Your task to perform on an android device: Open Google Chrome and open the bookmarks view Image 0: 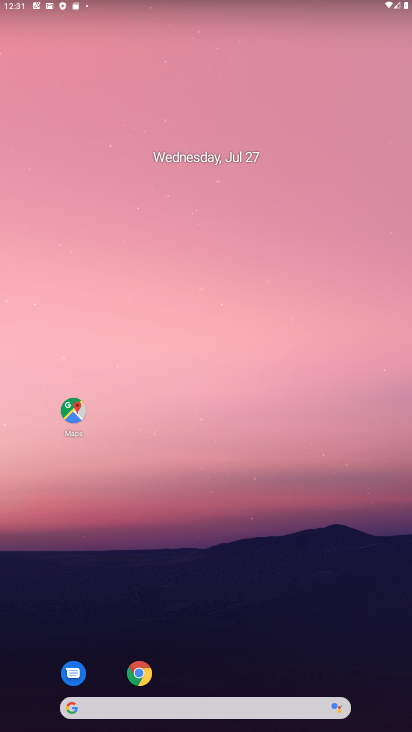
Step 0: drag from (181, 623) to (274, 69)
Your task to perform on an android device: Open Google Chrome and open the bookmarks view Image 1: 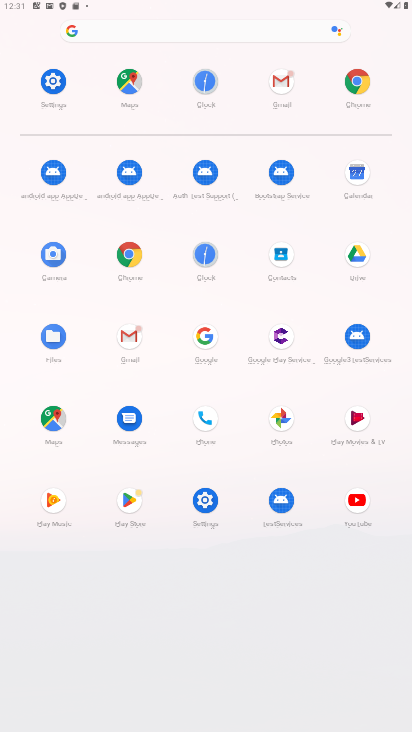
Step 1: click (138, 258)
Your task to perform on an android device: Open Google Chrome and open the bookmarks view Image 2: 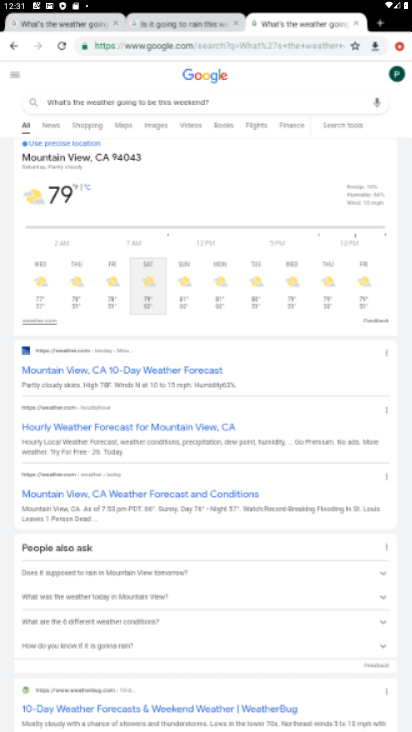
Step 2: click (403, 48)
Your task to perform on an android device: Open Google Chrome and open the bookmarks view Image 3: 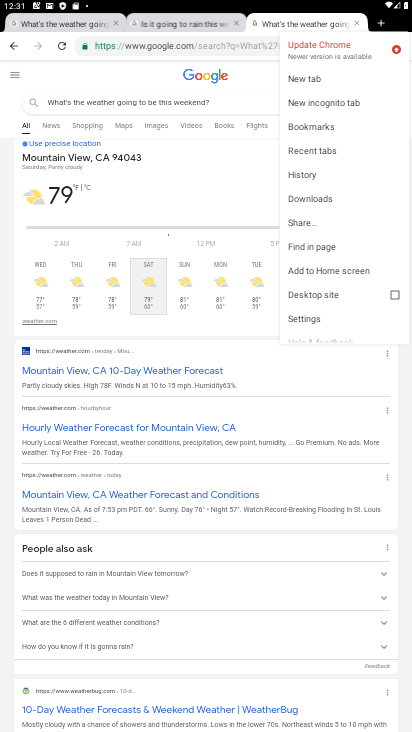
Step 3: click (306, 119)
Your task to perform on an android device: Open Google Chrome and open the bookmarks view Image 4: 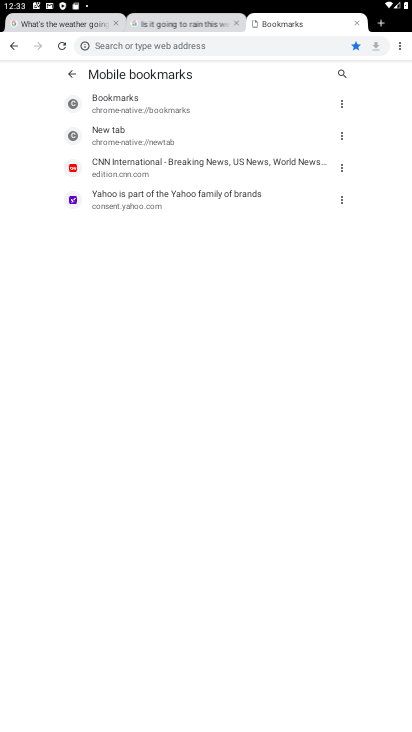
Step 4: task complete